Your task to perform on an android device: install app "Life360: Find Family & Friends" Image 0: 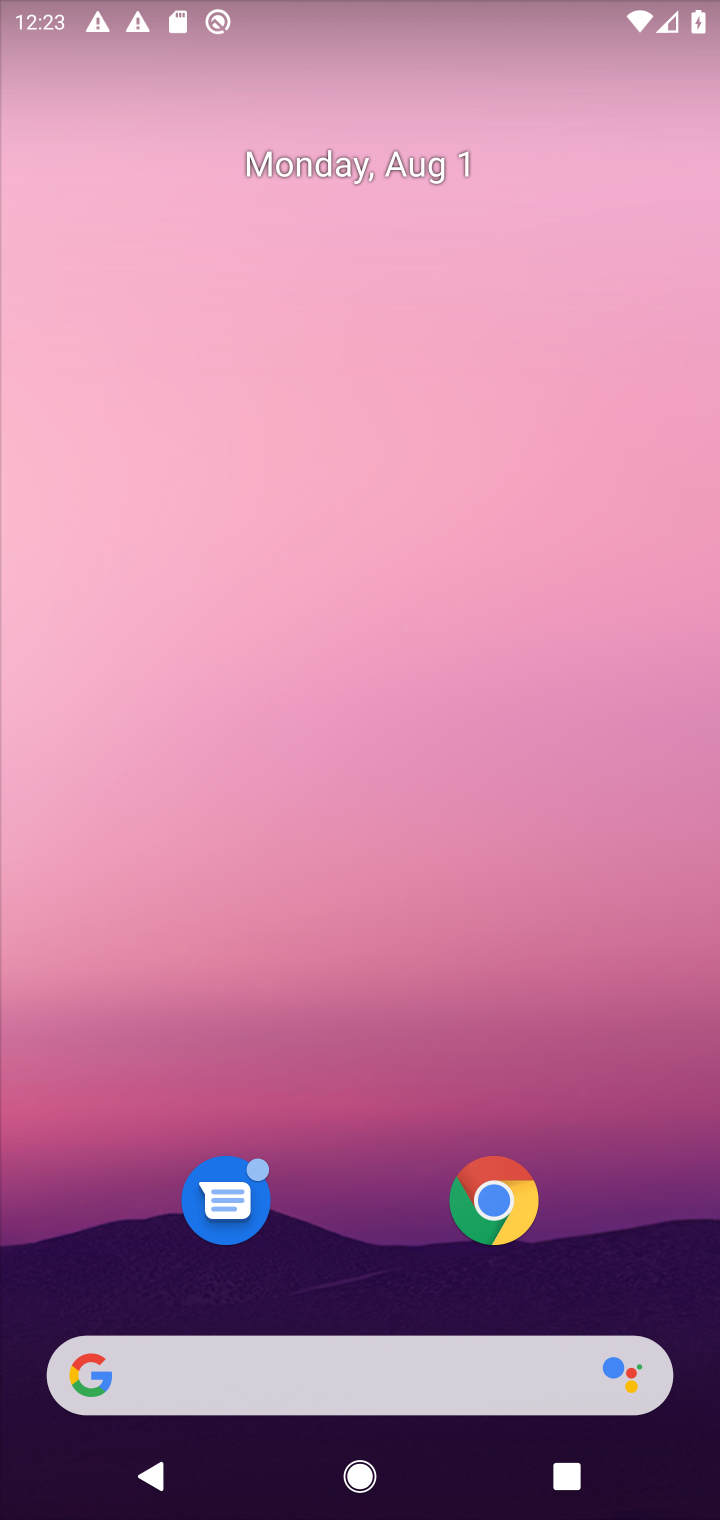
Step 0: press home button
Your task to perform on an android device: install app "Life360: Find Family & Friends" Image 1: 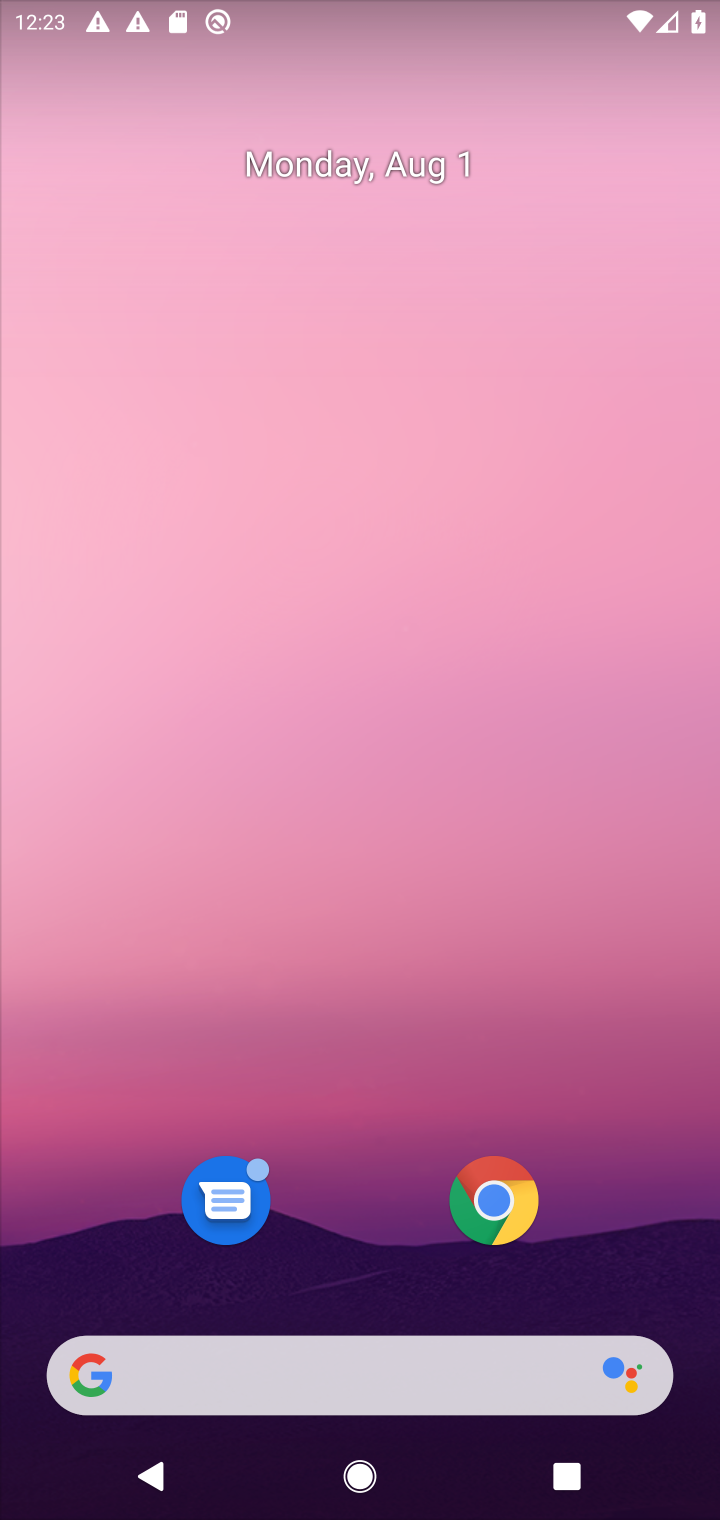
Step 1: drag from (353, 1284) to (353, 8)
Your task to perform on an android device: install app "Life360: Find Family & Friends" Image 2: 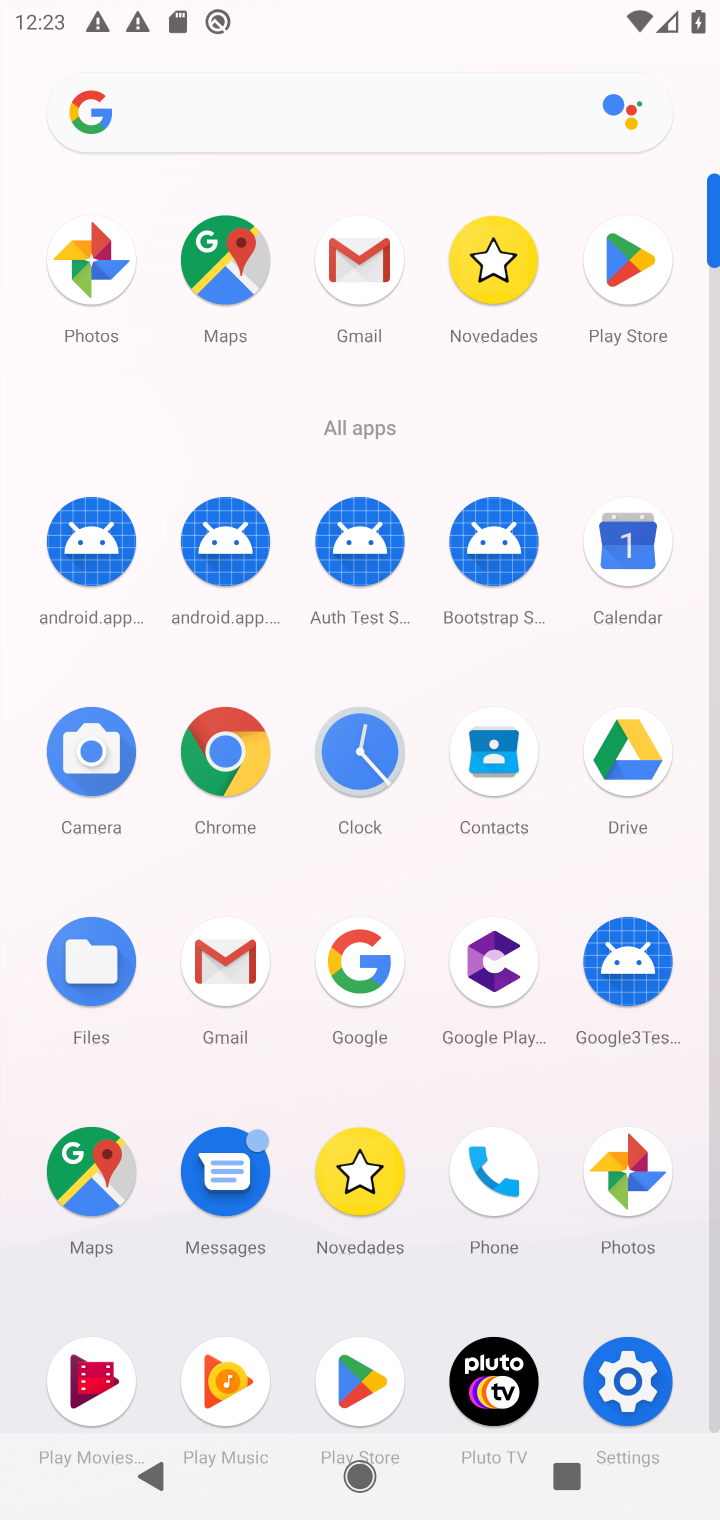
Step 2: click (623, 254)
Your task to perform on an android device: install app "Life360: Find Family & Friends" Image 3: 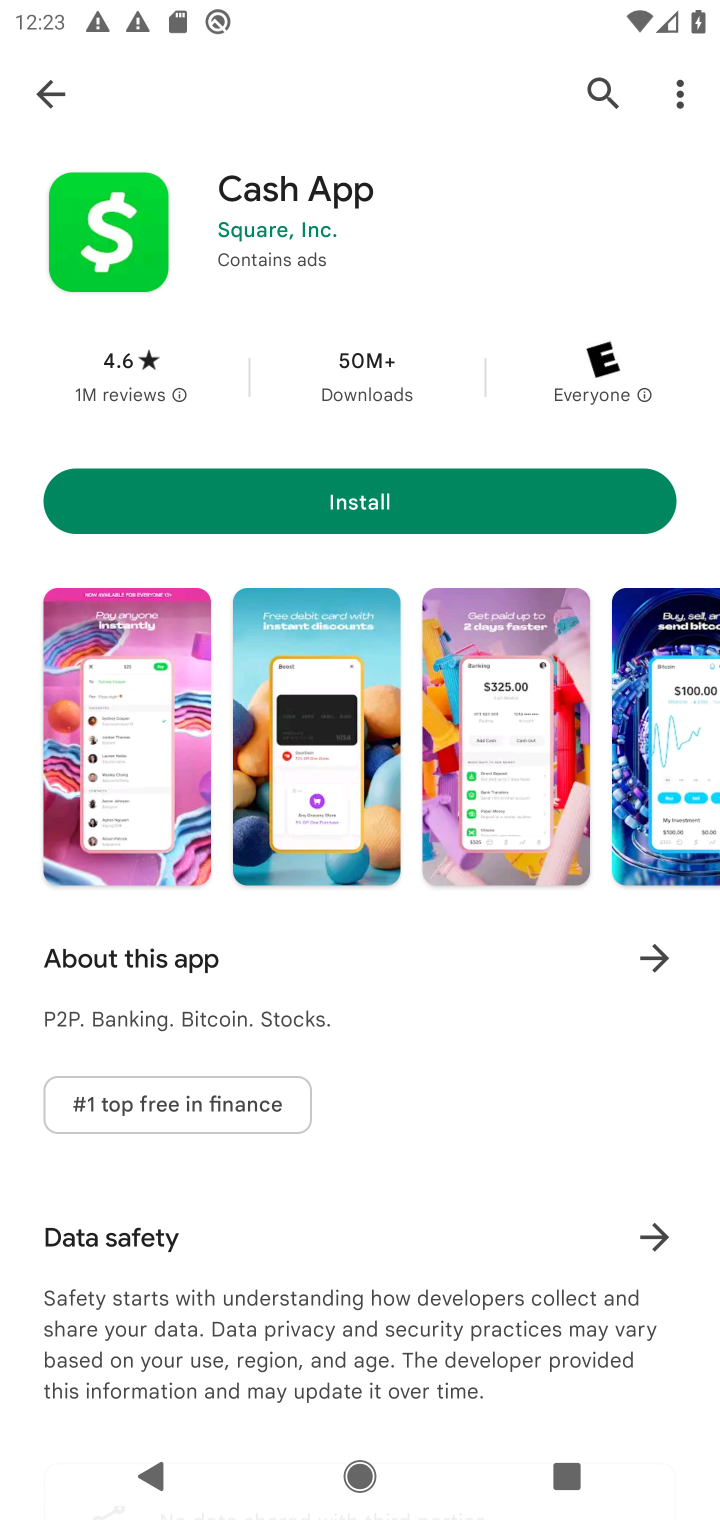
Step 3: click (611, 80)
Your task to perform on an android device: install app "Life360: Find Family & Friends" Image 4: 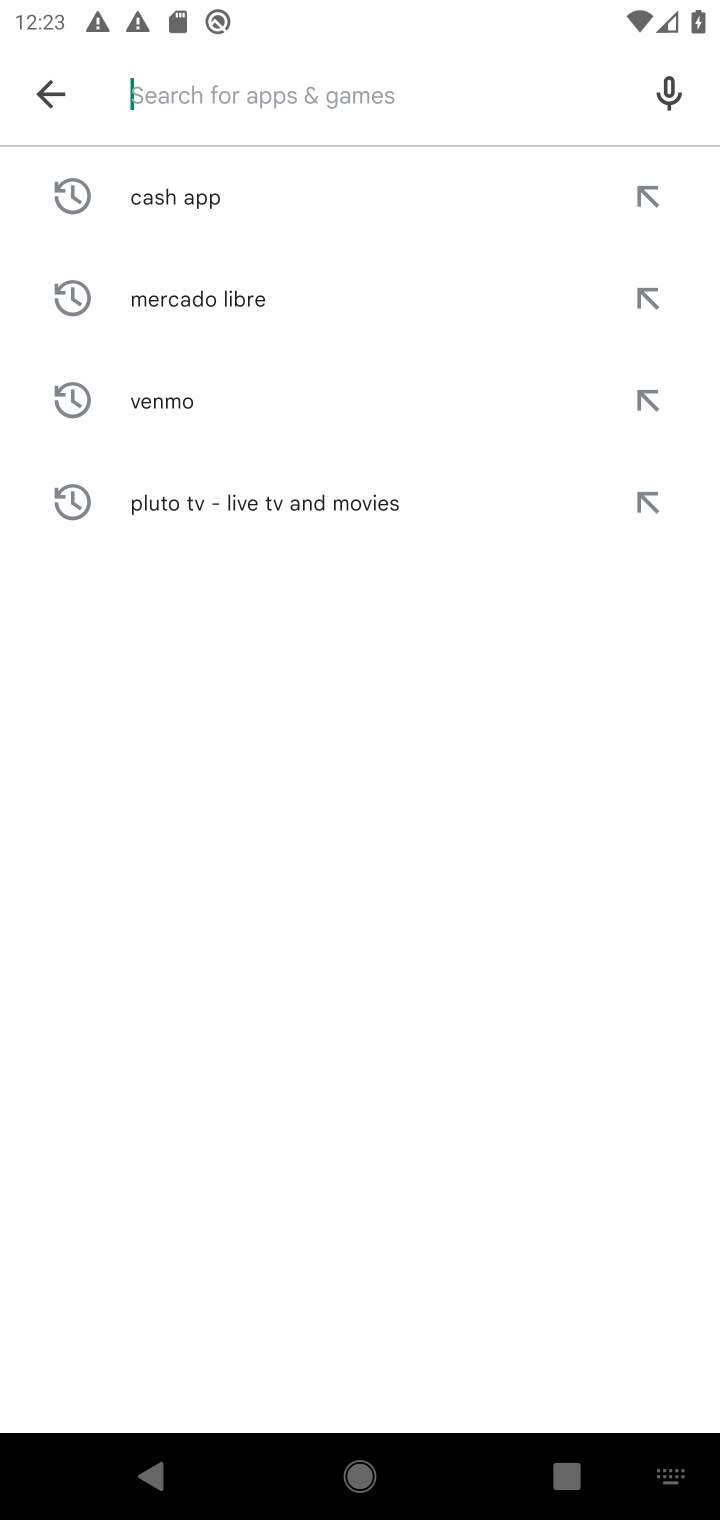
Step 4: type "life360: find family & friends"
Your task to perform on an android device: install app "Life360: Find Family & Friends" Image 5: 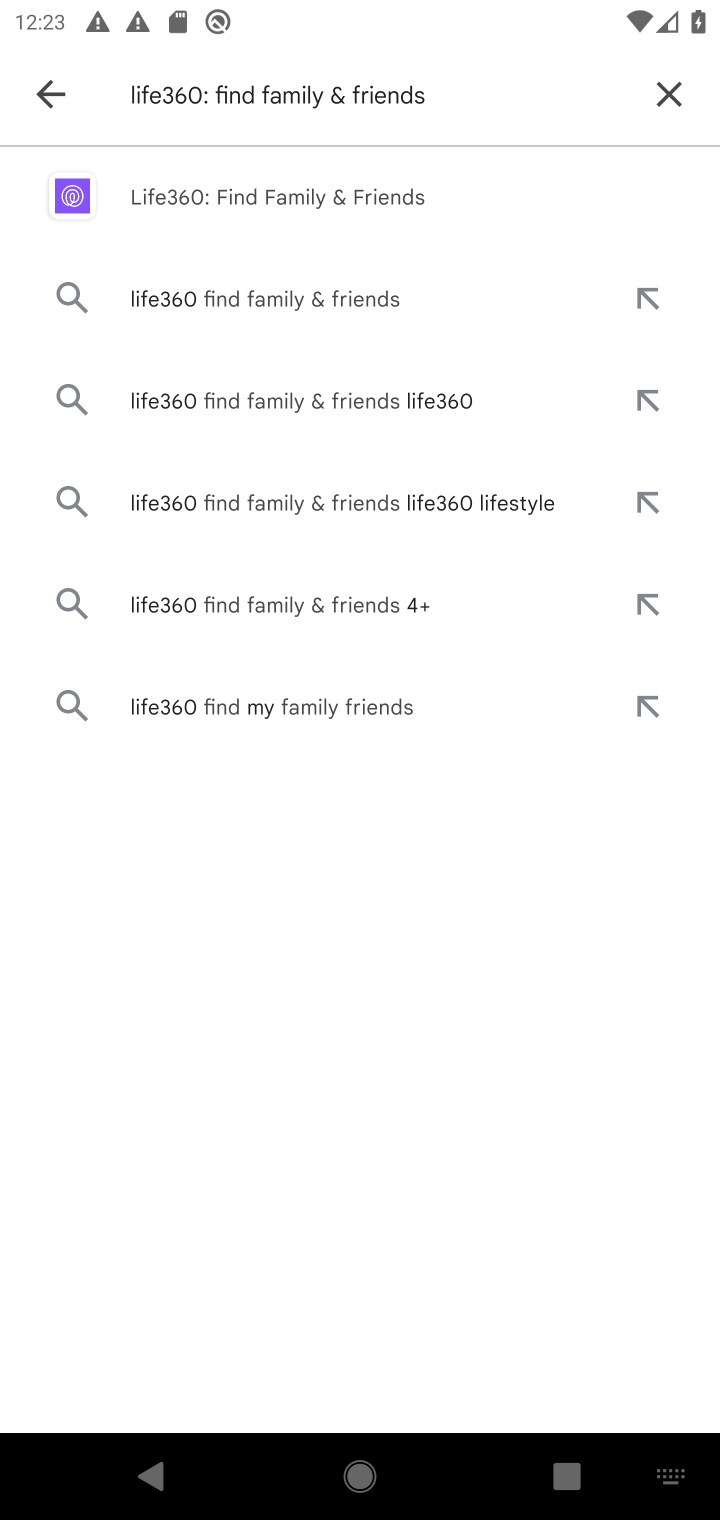
Step 5: click (228, 183)
Your task to perform on an android device: install app "Life360: Find Family & Friends" Image 6: 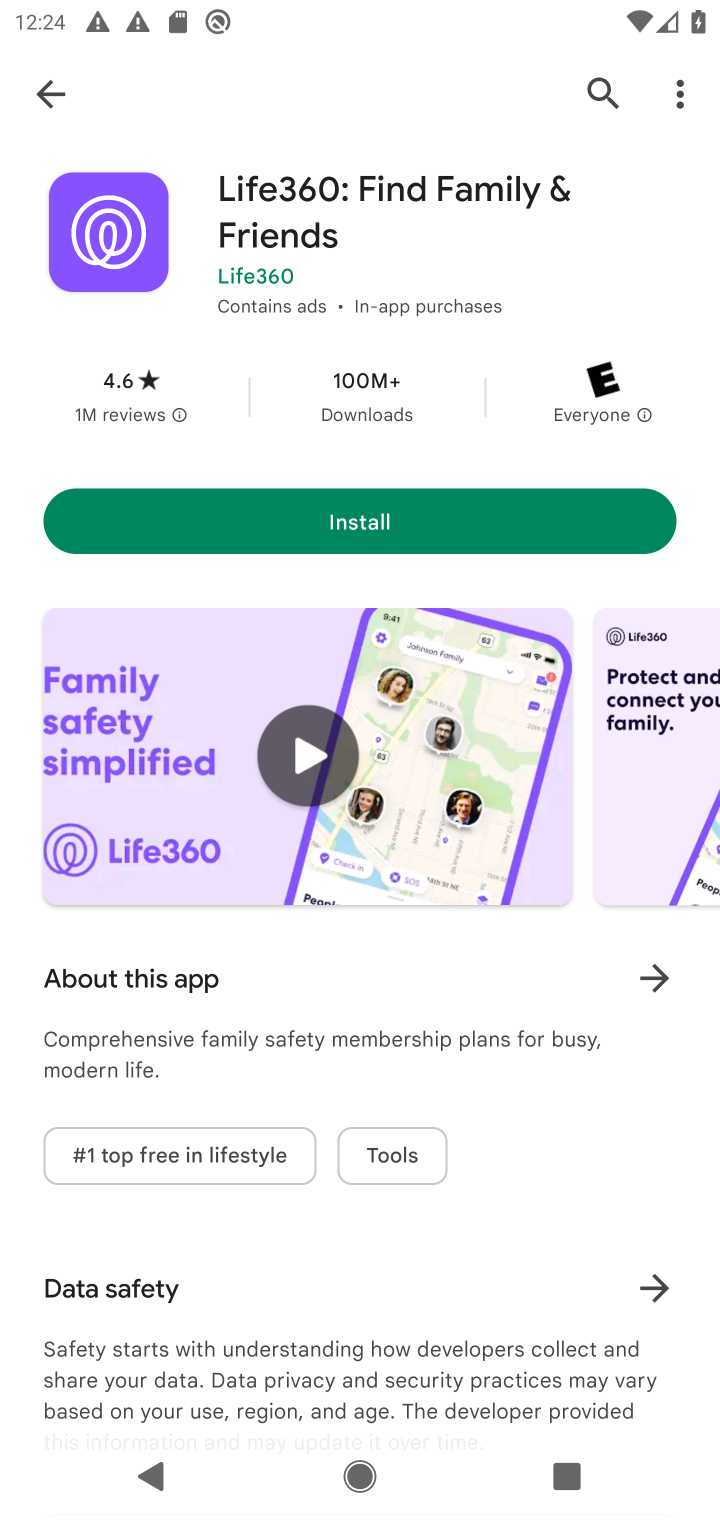
Step 6: click (289, 524)
Your task to perform on an android device: install app "Life360: Find Family & Friends" Image 7: 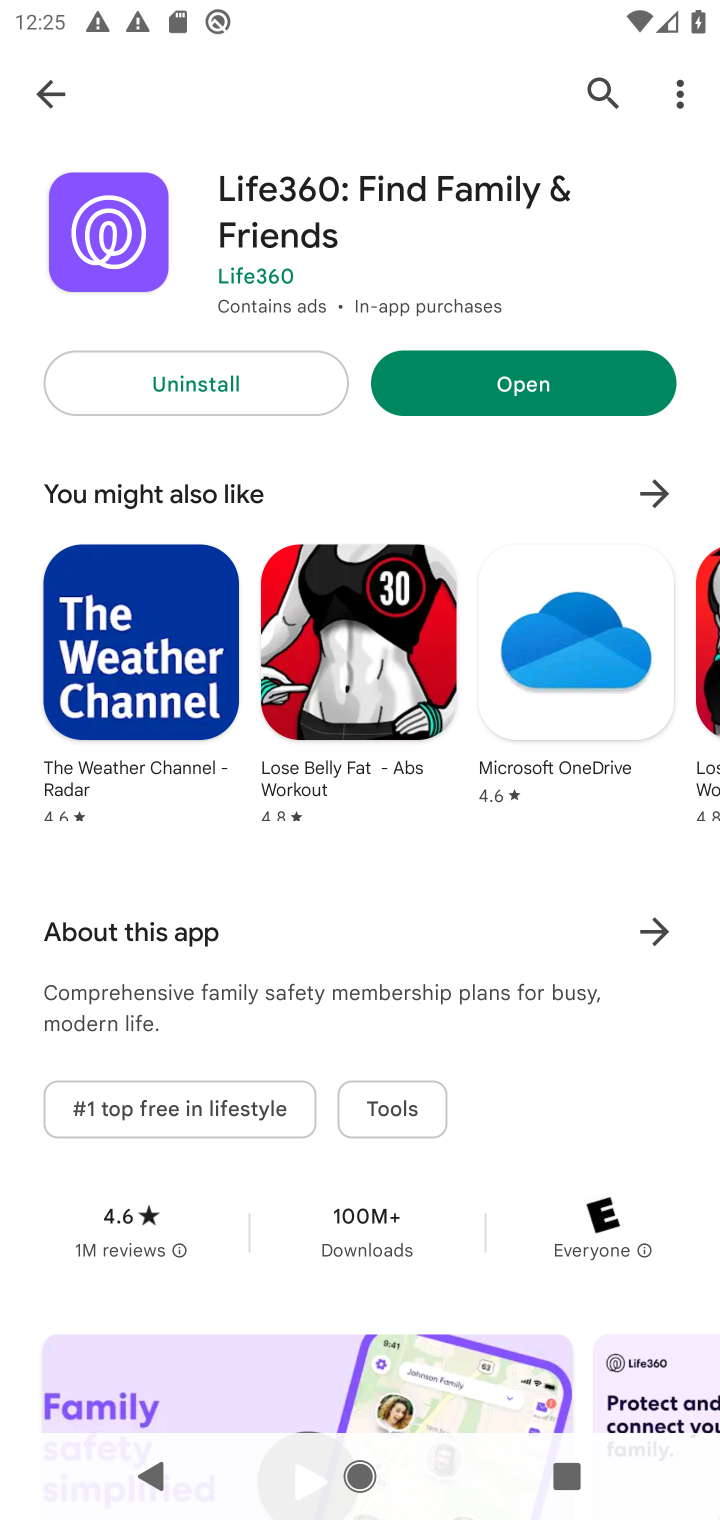
Step 7: task complete